Your task to perform on an android device: visit the assistant section in the google photos Image 0: 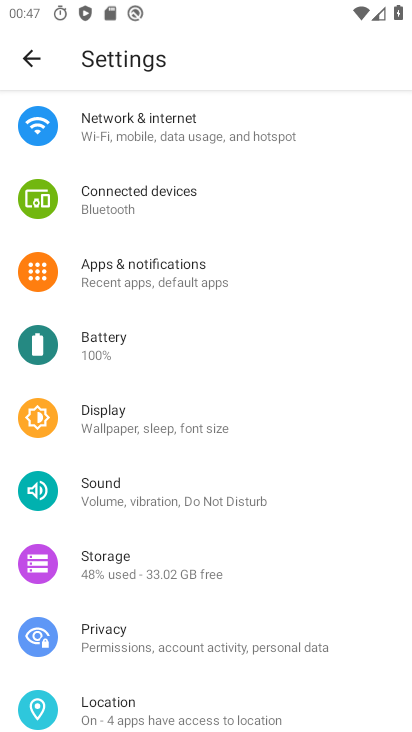
Step 0: press home button
Your task to perform on an android device: visit the assistant section in the google photos Image 1: 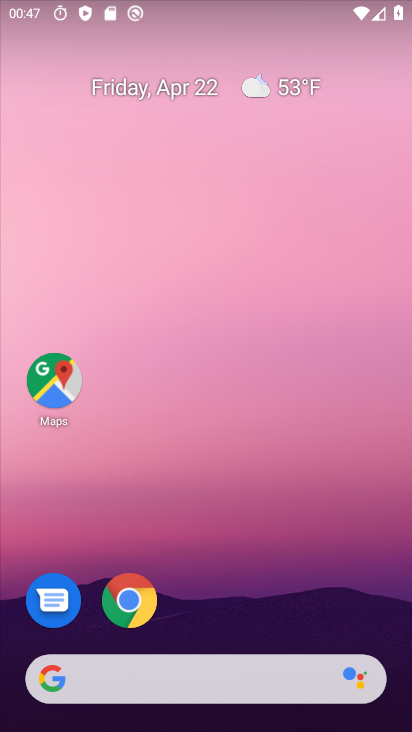
Step 1: drag from (200, 522) to (230, 101)
Your task to perform on an android device: visit the assistant section in the google photos Image 2: 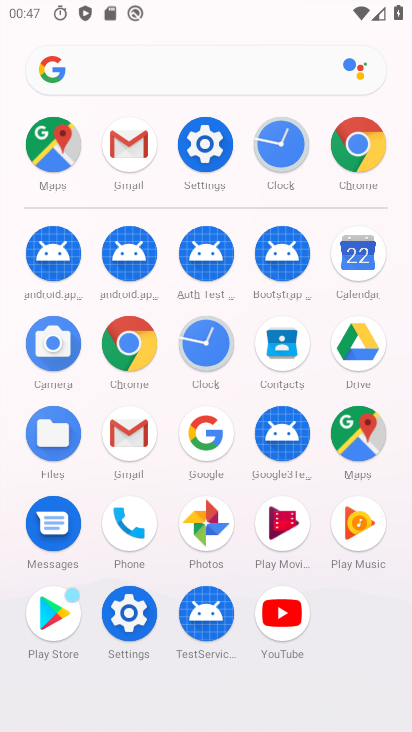
Step 2: click (212, 520)
Your task to perform on an android device: visit the assistant section in the google photos Image 3: 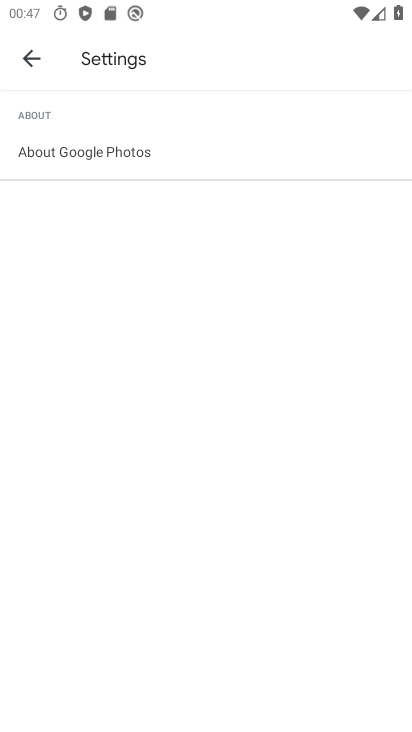
Step 3: click (27, 62)
Your task to perform on an android device: visit the assistant section in the google photos Image 4: 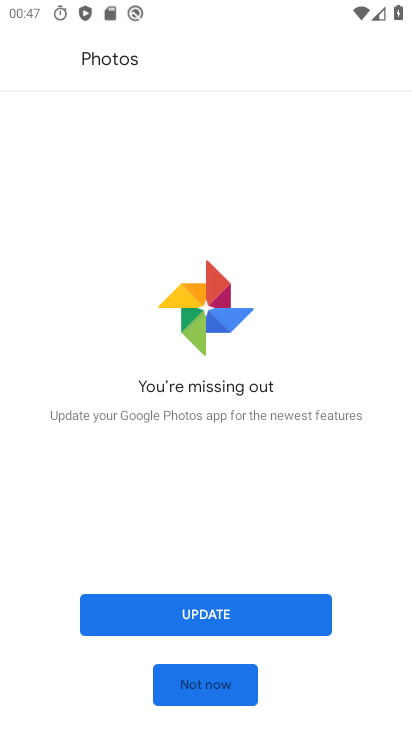
Step 4: click (176, 628)
Your task to perform on an android device: visit the assistant section in the google photos Image 5: 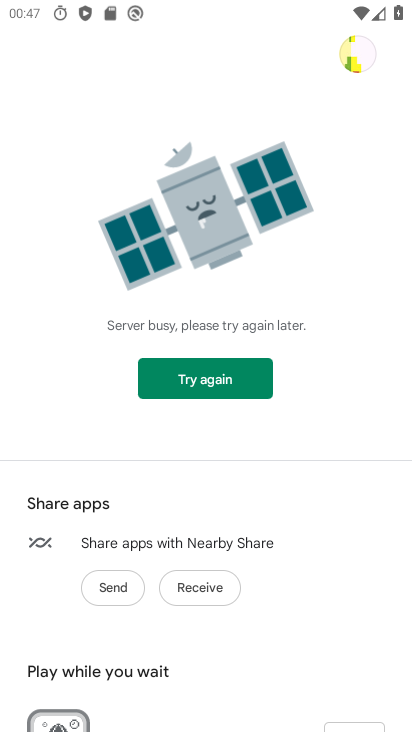
Step 5: click (219, 382)
Your task to perform on an android device: visit the assistant section in the google photos Image 6: 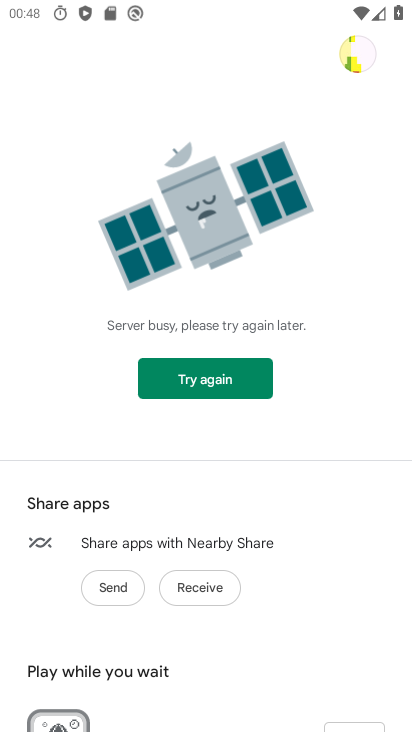
Step 6: task complete